Your task to perform on an android device: Open Google Maps Image 0: 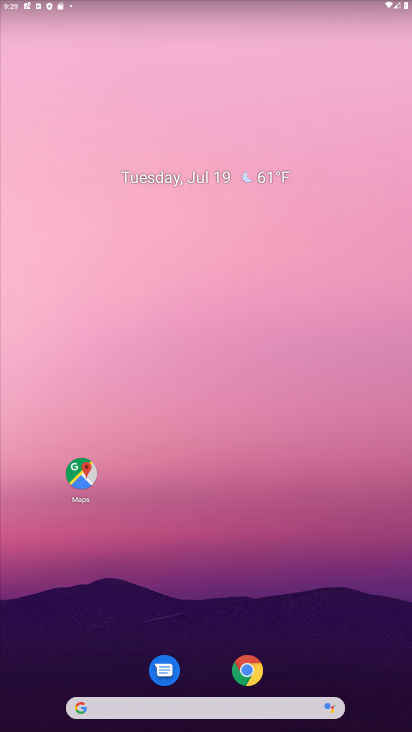
Step 0: click (75, 467)
Your task to perform on an android device: Open Google Maps Image 1: 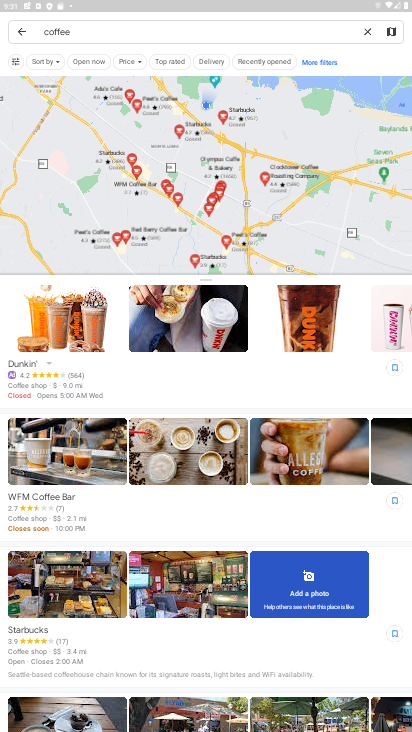
Step 1: task complete